Your task to perform on an android device: refresh tabs in the chrome app Image 0: 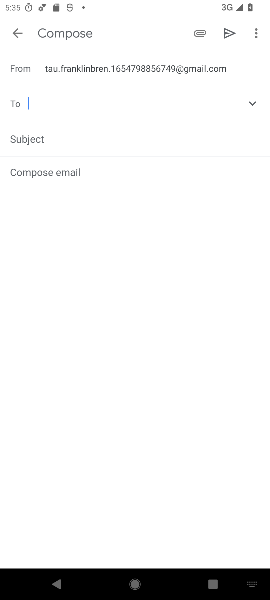
Step 0: press home button
Your task to perform on an android device: refresh tabs in the chrome app Image 1: 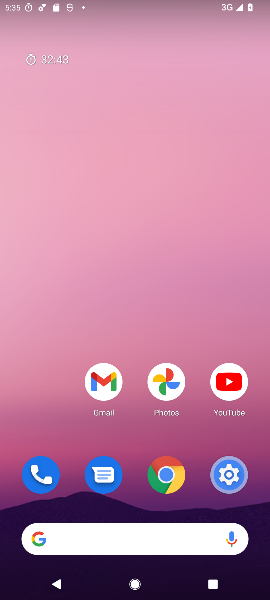
Step 1: drag from (64, 422) to (73, 133)
Your task to perform on an android device: refresh tabs in the chrome app Image 2: 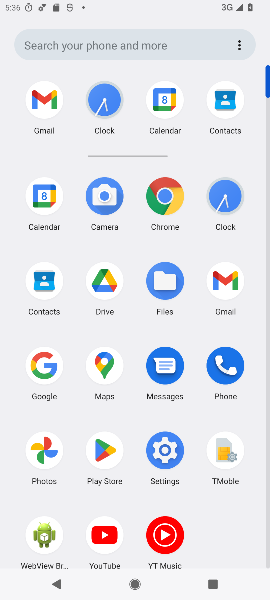
Step 2: click (159, 202)
Your task to perform on an android device: refresh tabs in the chrome app Image 3: 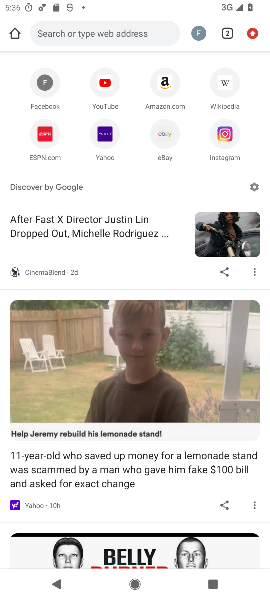
Step 3: click (250, 34)
Your task to perform on an android device: refresh tabs in the chrome app Image 4: 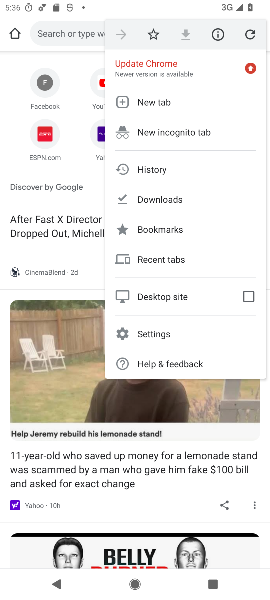
Step 4: click (246, 29)
Your task to perform on an android device: refresh tabs in the chrome app Image 5: 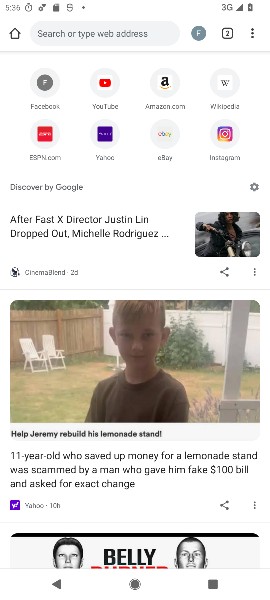
Step 5: task complete